Your task to perform on an android device: Open location settings Image 0: 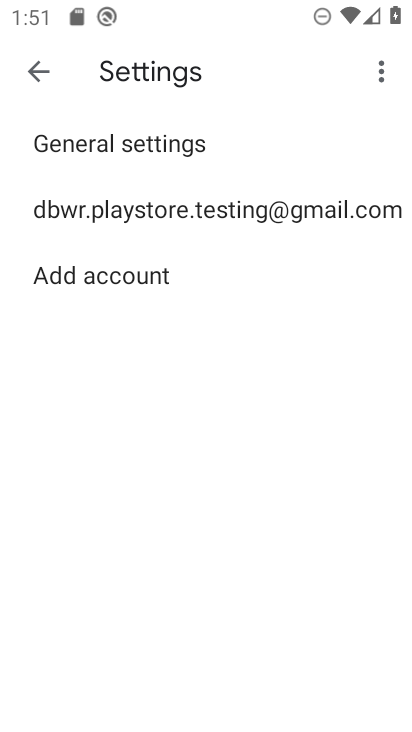
Step 0: press home button
Your task to perform on an android device: Open location settings Image 1: 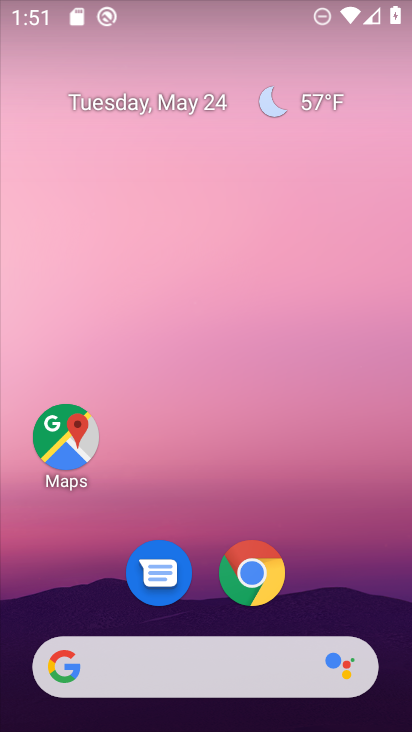
Step 1: drag from (360, 608) to (389, 213)
Your task to perform on an android device: Open location settings Image 2: 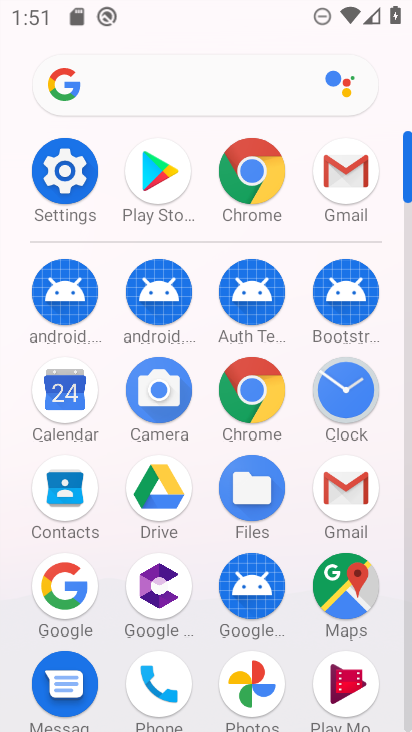
Step 2: click (59, 189)
Your task to perform on an android device: Open location settings Image 3: 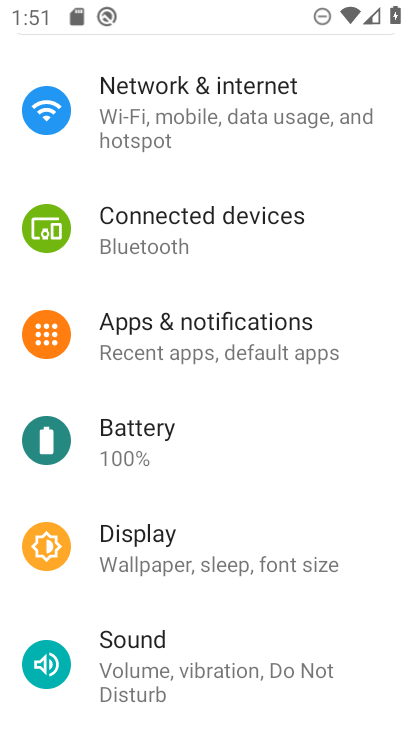
Step 3: drag from (179, 568) to (246, 225)
Your task to perform on an android device: Open location settings Image 4: 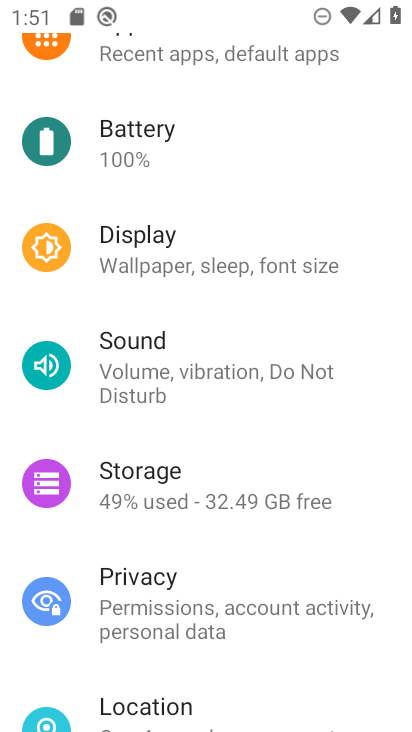
Step 4: click (184, 707)
Your task to perform on an android device: Open location settings Image 5: 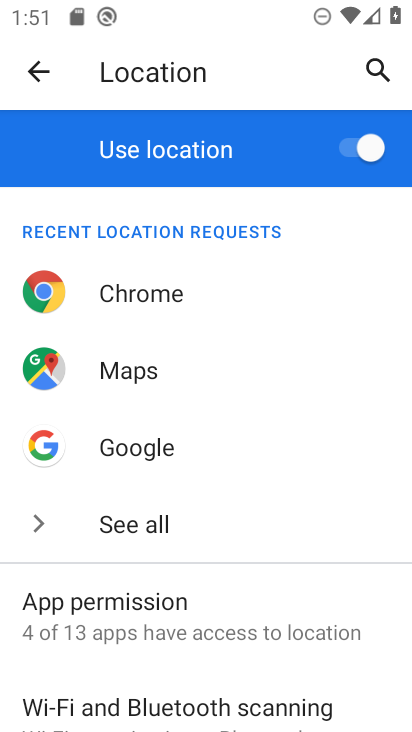
Step 5: task complete